Your task to perform on an android device: delete the emails in spam in the gmail app Image 0: 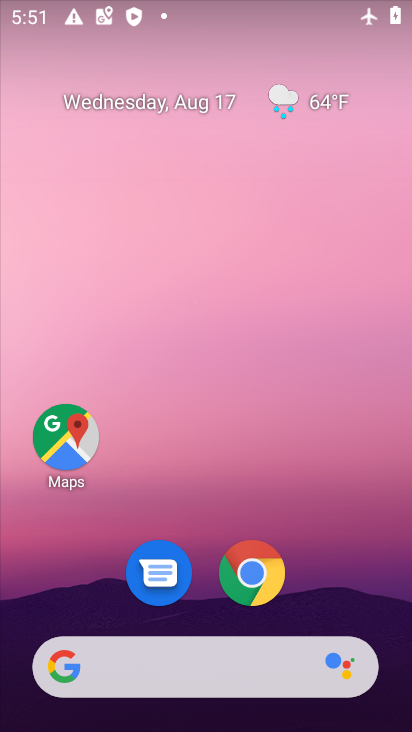
Step 0: drag from (345, 622) to (247, 38)
Your task to perform on an android device: delete the emails in spam in the gmail app Image 1: 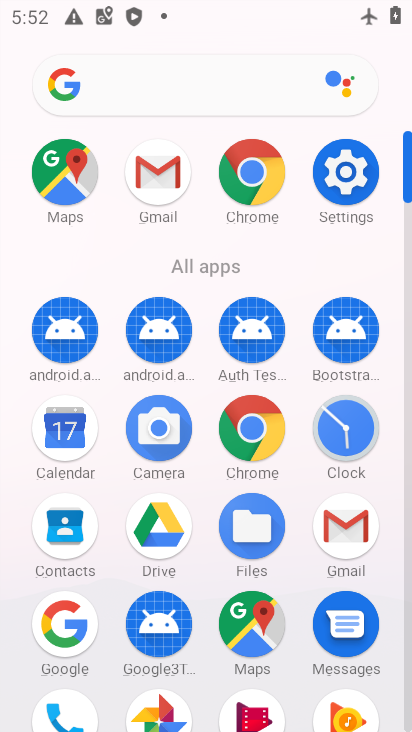
Step 1: click (167, 182)
Your task to perform on an android device: delete the emails in spam in the gmail app Image 2: 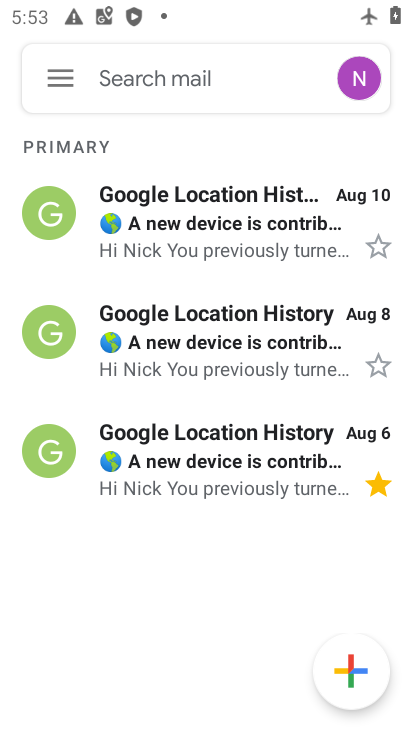
Step 2: click (166, 229)
Your task to perform on an android device: delete the emails in spam in the gmail app Image 3: 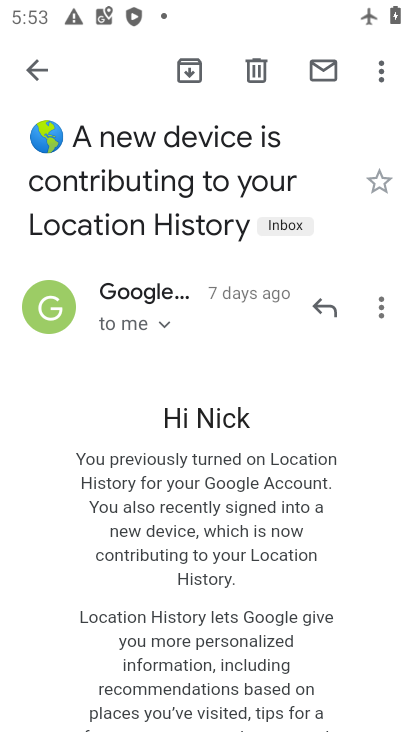
Step 3: click (244, 71)
Your task to perform on an android device: delete the emails in spam in the gmail app Image 4: 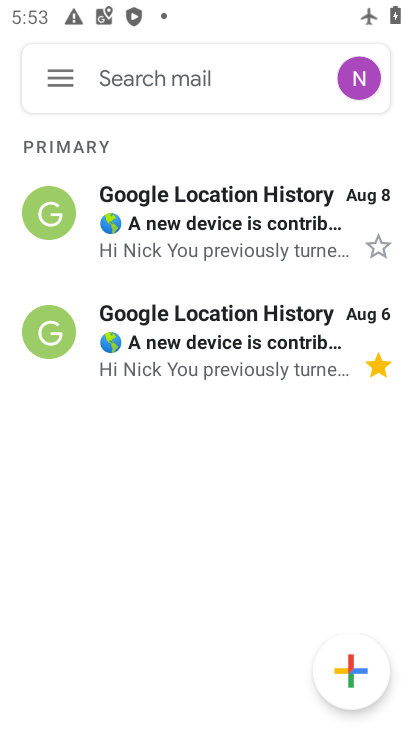
Step 4: task complete